Your task to perform on an android device: turn off translation in the chrome app Image 0: 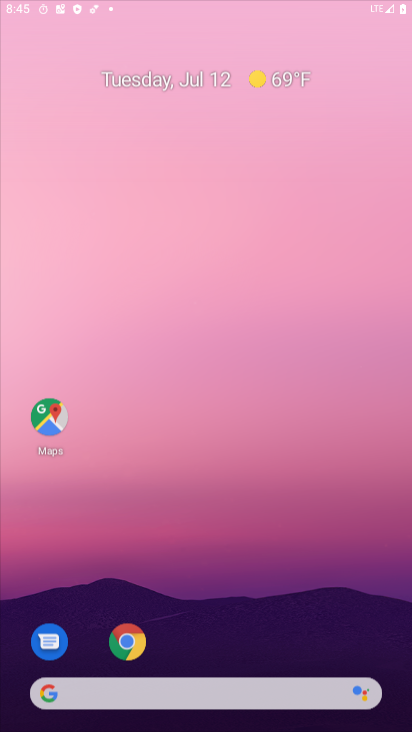
Step 0: press home button
Your task to perform on an android device: turn off translation in the chrome app Image 1: 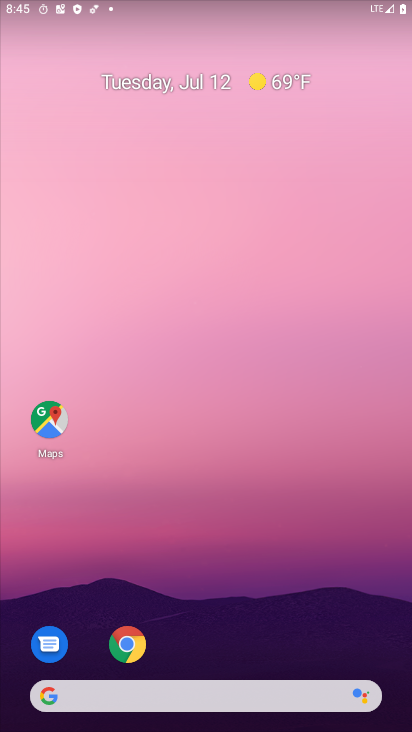
Step 1: click (129, 641)
Your task to perform on an android device: turn off translation in the chrome app Image 2: 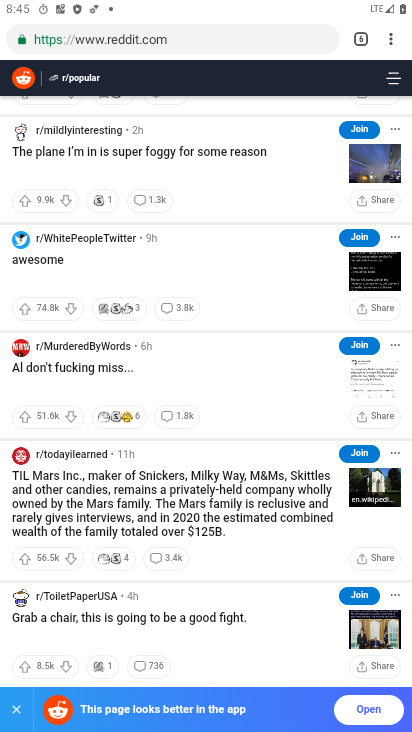
Step 2: click (354, 37)
Your task to perform on an android device: turn off translation in the chrome app Image 3: 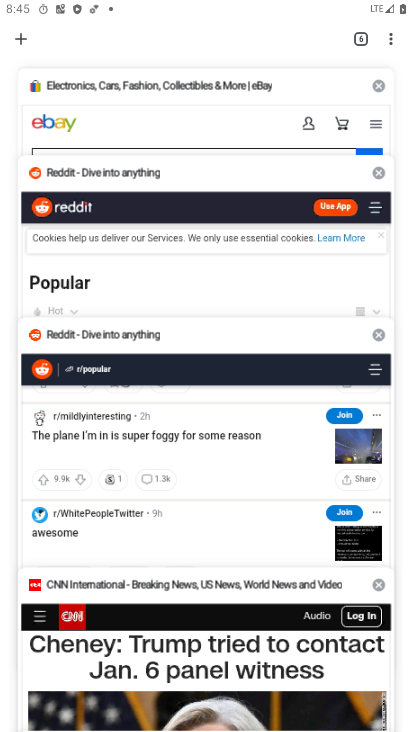
Step 3: click (20, 45)
Your task to perform on an android device: turn off translation in the chrome app Image 4: 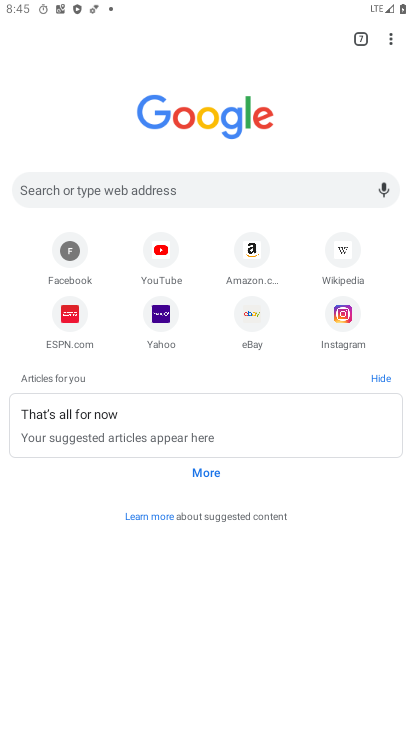
Step 4: click (388, 32)
Your task to perform on an android device: turn off translation in the chrome app Image 5: 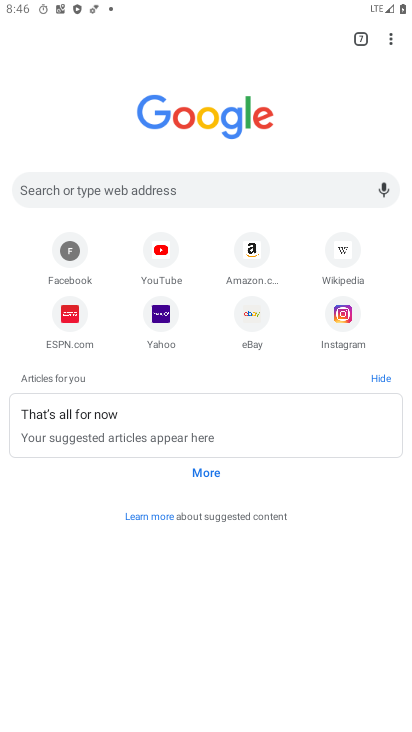
Step 5: click (384, 37)
Your task to perform on an android device: turn off translation in the chrome app Image 6: 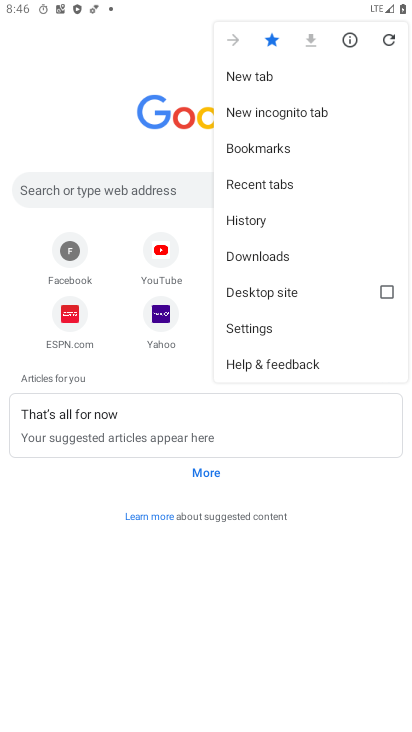
Step 6: click (275, 325)
Your task to perform on an android device: turn off translation in the chrome app Image 7: 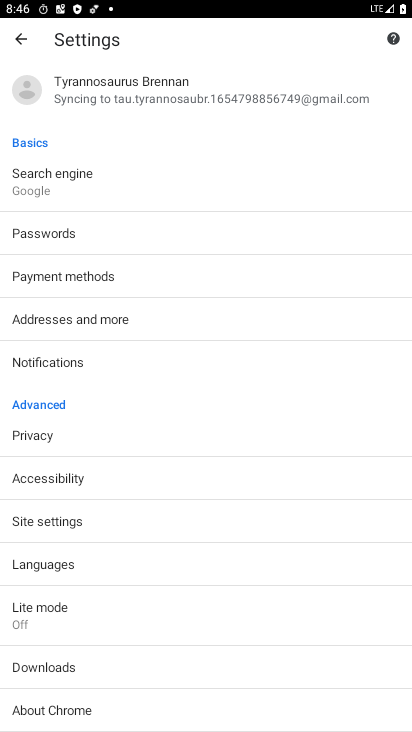
Step 7: click (85, 563)
Your task to perform on an android device: turn off translation in the chrome app Image 8: 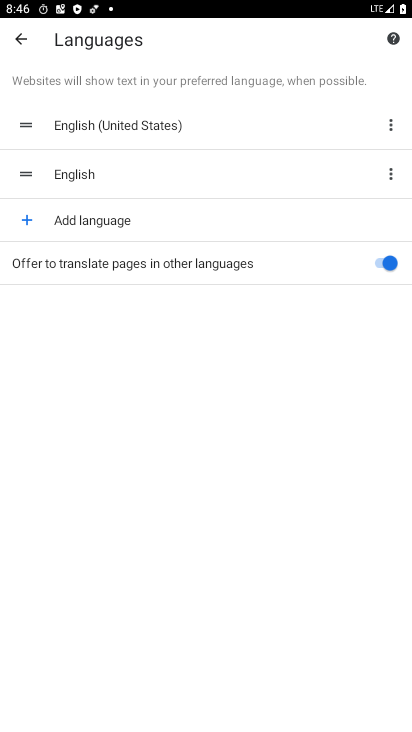
Step 8: click (378, 264)
Your task to perform on an android device: turn off translation in the chrome app Image 9: 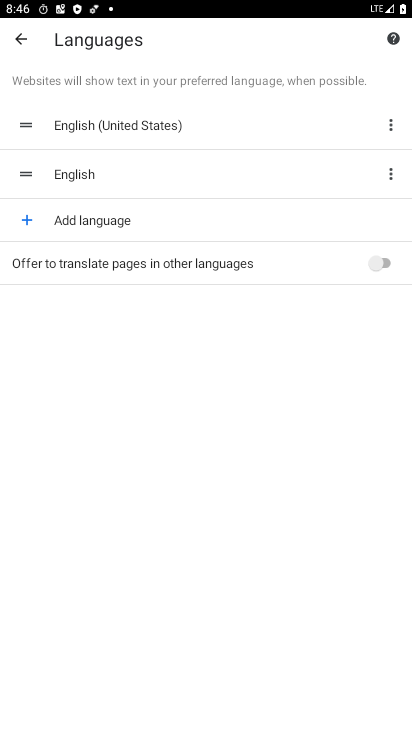
Step 9: task complete